Your task to perform on an android device: toggle show notifications on the lock screen Image 0: 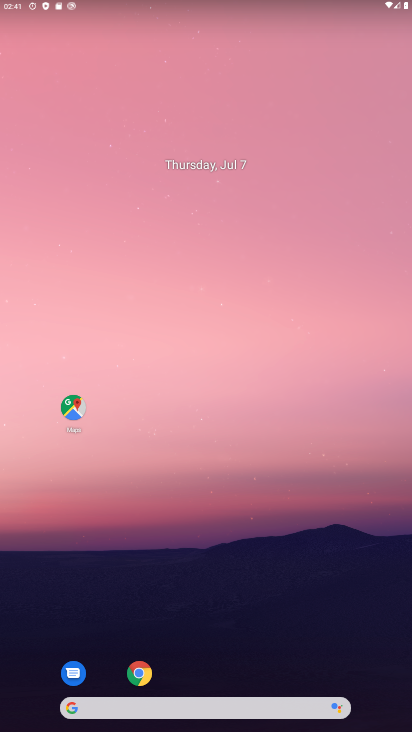
Step 0: drag from (255, 643) to (255, 176)
Your task to perform on an android device: toggle show notifications on the lock screen Image 1: 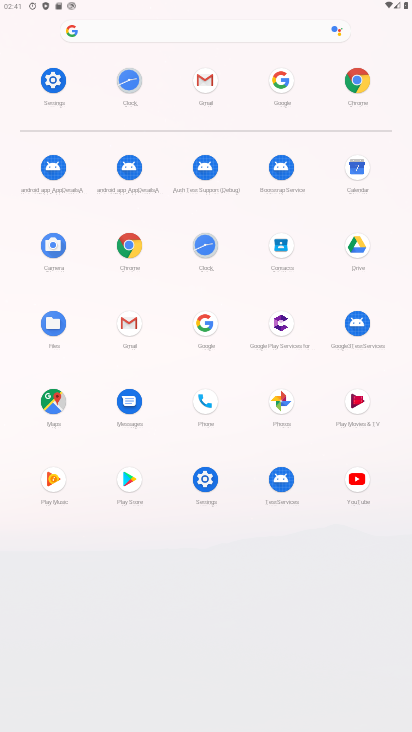
Step 1: click (68, 80)
Your task to perform on an android device: toggle show notifications on the lock screen Image 2: 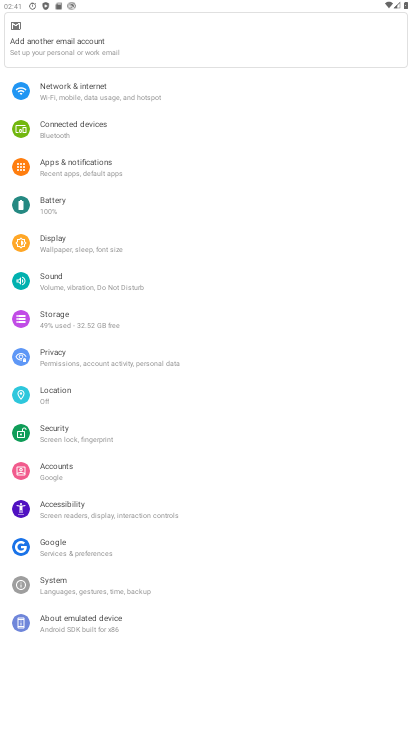
Step 2: click (135, 161)
Your task to perform on an android device: toggle show notifications on the lock screen Image 3: 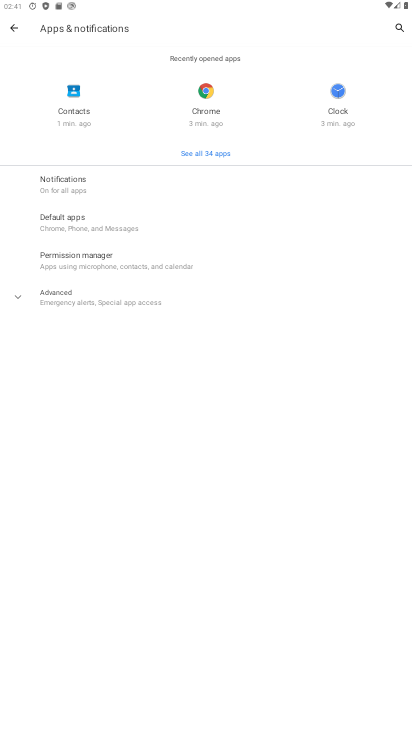
Step 3: click (98, 186)
Your task to perform on an android device: toggle show notifications on the lock screen Image 4: 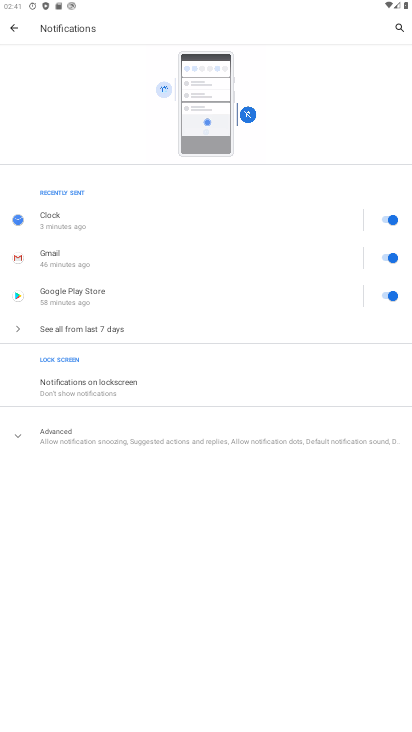
Step 4: click (119, 385)
Your task to perform on an android device: toggle show notifications on the lock screen Image 5: 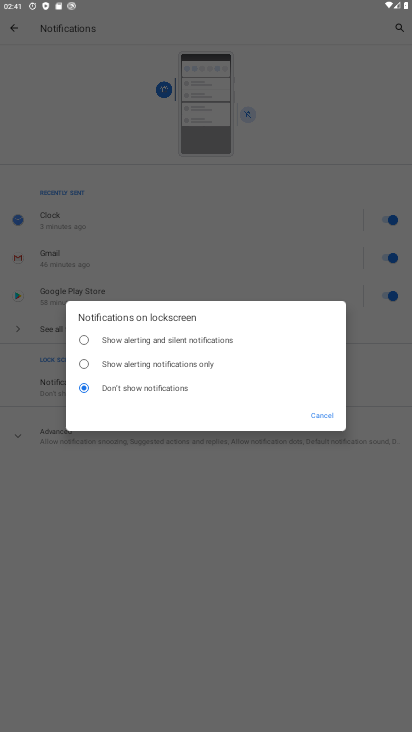
Step 5: click (123, 337)
Your task to perform on an android device: toggle show notifications on the lock screen Image 6: 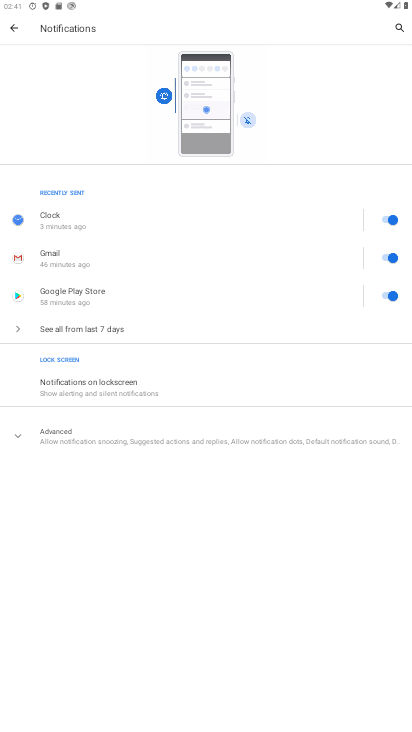
Step 6: task complete